Your task to perform on an android device: Open calendar and show me the third week of next month Image 0: 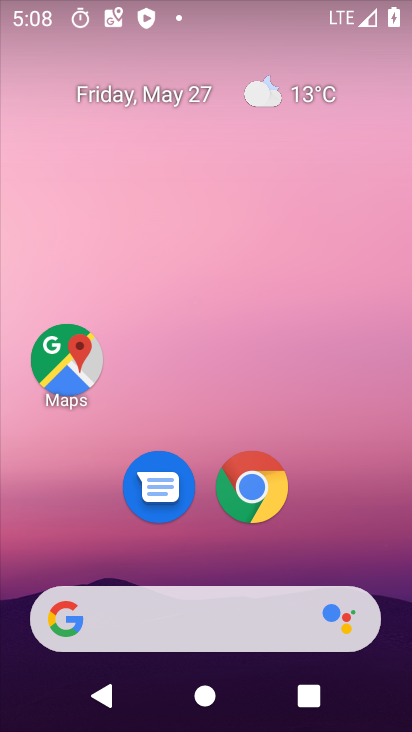
Step 0: drag from (361, 552) to (238, 5)
Your task to perform on an android device: Open calendar and show me the third week of next month Image 1: 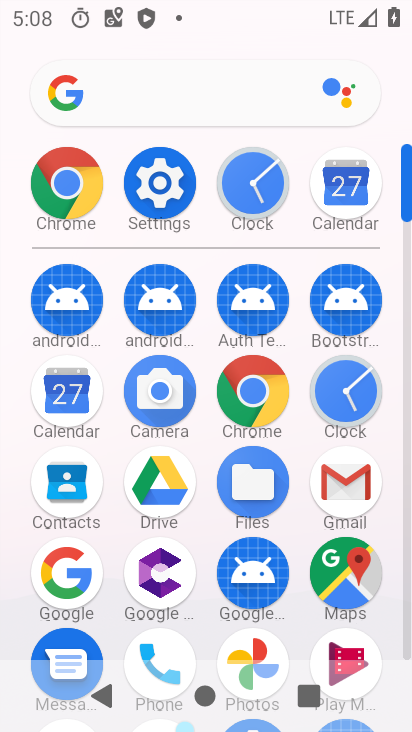
Step 1: click (340, 189)
Your task to perform on an android device: Open calendar and show me the third week of next month Image 2: 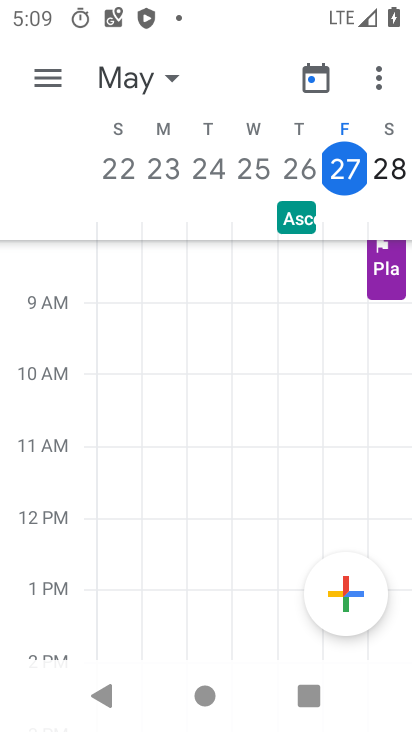
Step 2: click (132, 81)
Your task to perform on an android device: Open calendar and show me the third week of next month Image 3: 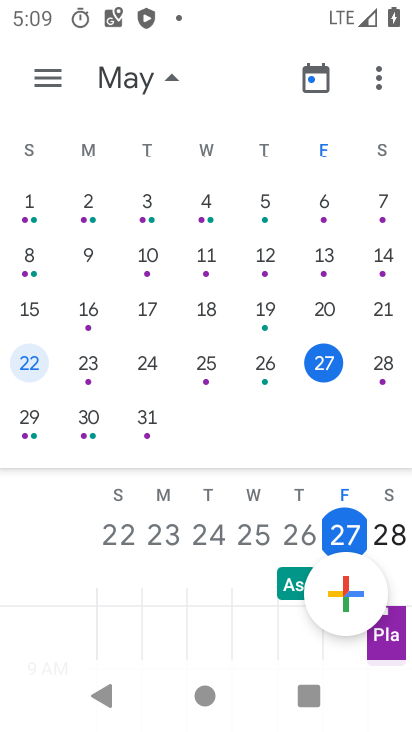
Step 3: drag from (370, 330) to (127, 311)
Your task to perform on an android device: Open calendar and show me the third week of next month Image 4: 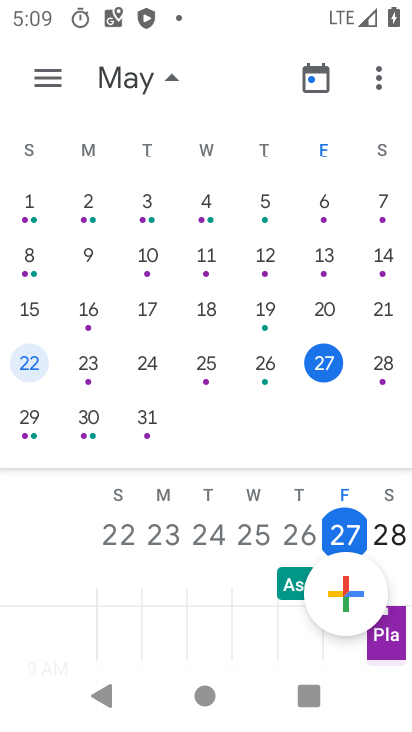
Step 4: drag from (357, 267) to (86, 259)
Your task to perform on an android device: Open calendar and show me the third week of next month Image 5: 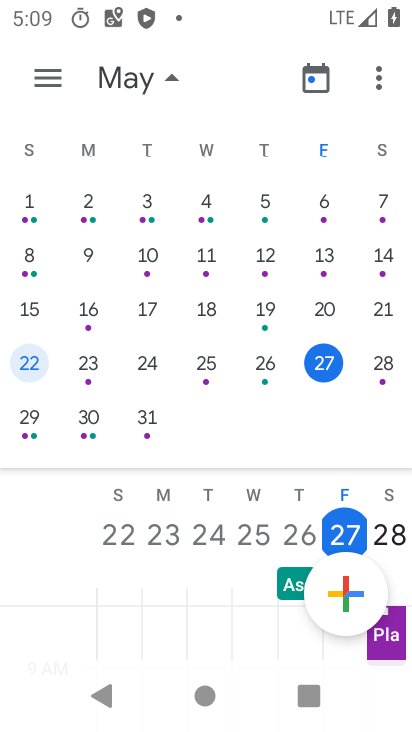
Step 5: drag from (385, 318) to (53, 288)
Your task to perform on an android device: Open calendar and show me the third week of next month Image 6: 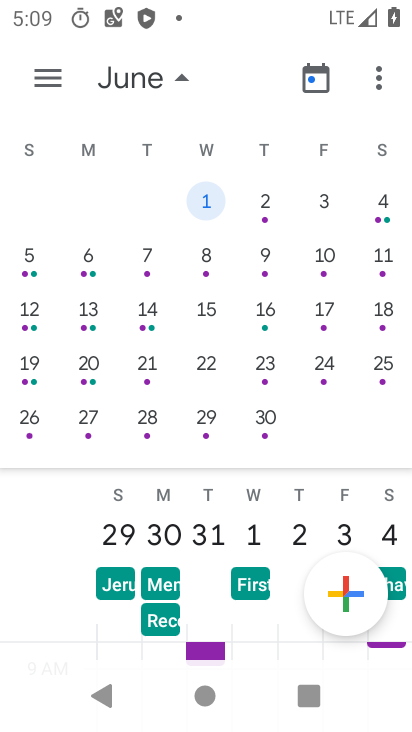
Step 6: click (31, 363)
Your task to perform on an android device: Open calendar and show me the third week of next month Image 7: 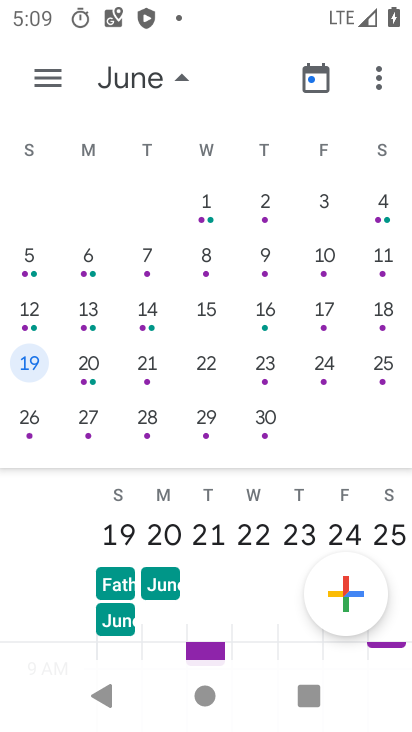
Step 7: task complete